Your task to perform on an android device: turn off sleep mode Image 0: 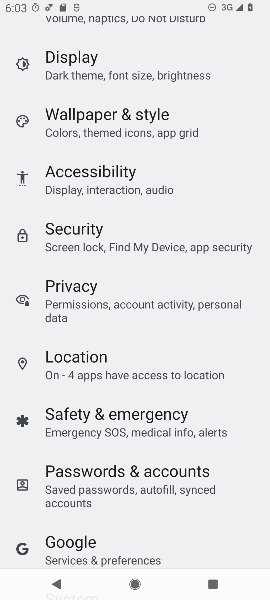
Step 0: press home button
Your task to perform on an android device: turn off sleep mode Image 1: 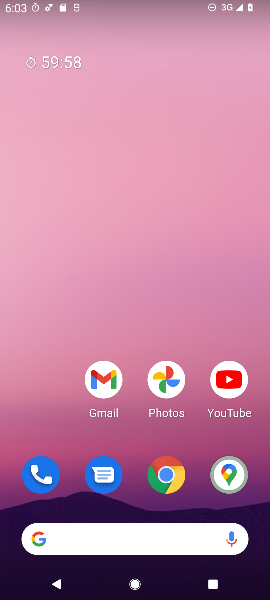
Step 1: drag from (42, 423) to (43, 98)
Your task to perform on an android device: turn off sleep mode Image 2: 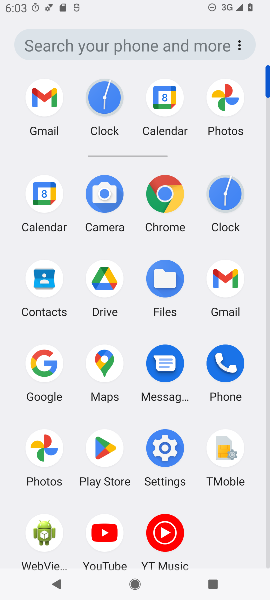
Step 2: click (168, 454)
Your task to perform on an android device: turn off sleep mode Image 3: 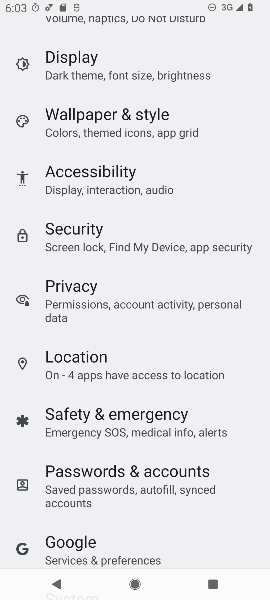
Step 3: drag from (252, 329) to (249, 394)
Your task to perform on an android device: turn off sleep mode Image 4: 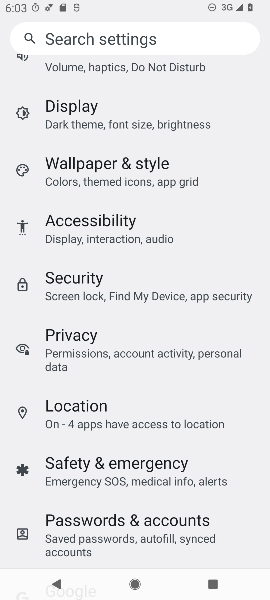
Step 4: drag from (249, 294) to (249, 390)
Your task to perform on an android device: turn off sleep mode Image 5: 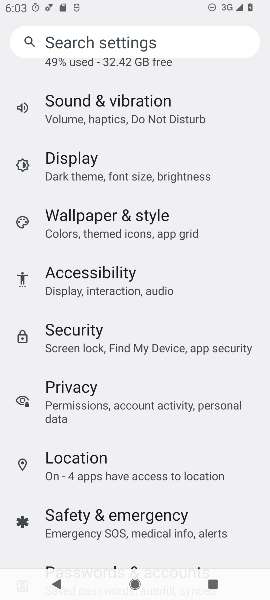
Step 5: drag from (237, 219) to (237, 335)
Your task to perform on an android device: turn off sleep mode Image 6: 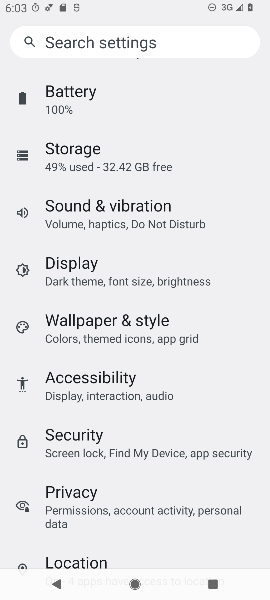
Step 6: drag from (242, 169) to (242, 292)
Your task to perform on an android device: turn off sleep mode Image 7: 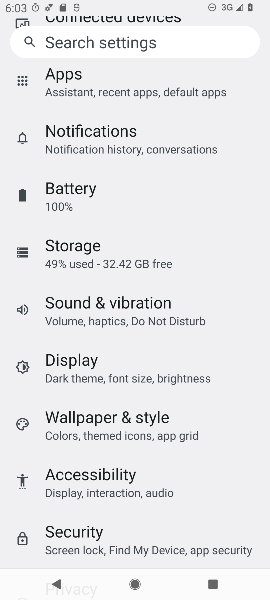
Step 7: click (203, 365)
Your task to perform on an android device: turn off sleep mode Image 8: 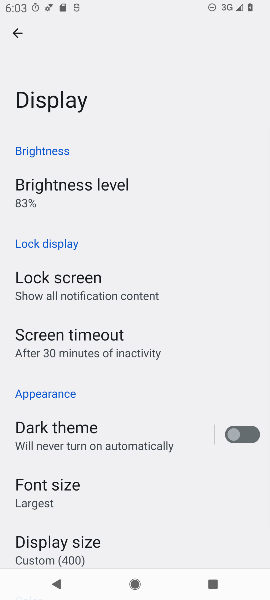
Step 8: task complete